Your task to perform on an android device: Open maps Image 0: 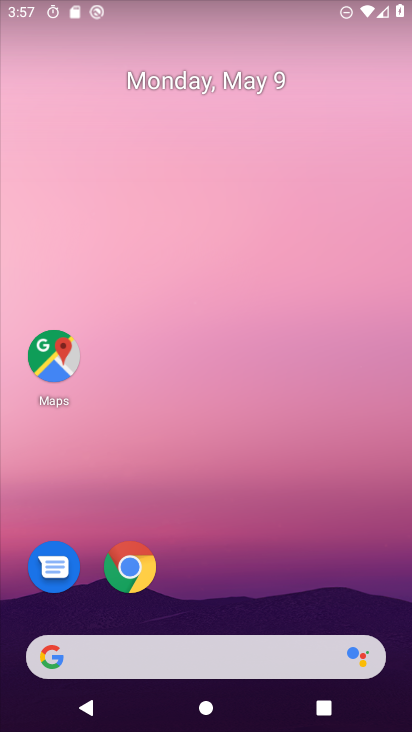
Step 0: click (42, 362)
Your task to perform on an android device: Open maps Image 1: 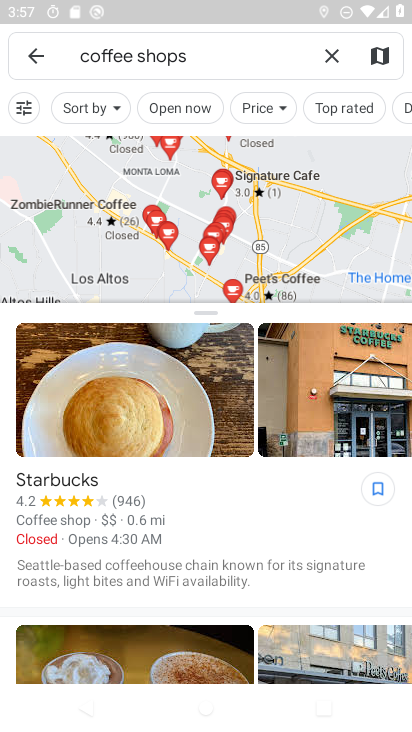
Step 1: task complete